Your task to perform on an android device: turn off priority inbox in the gmail app Image 0: 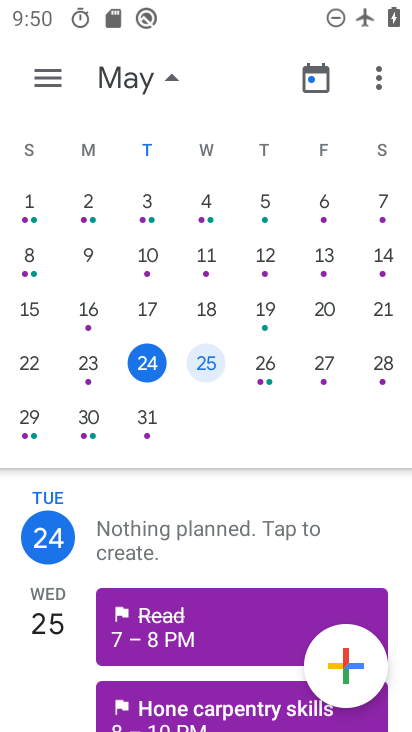
Step 0: press home button
Your task to perform on an android device: turn off priority inbox in the gmail app Image 1: 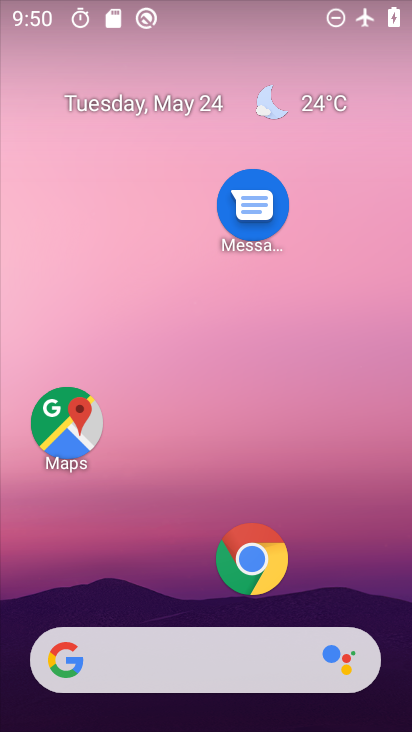
Step 1: click (176, 193)
Your task to perform on an android device: turn off priority inbox in the gmail app Image 2: 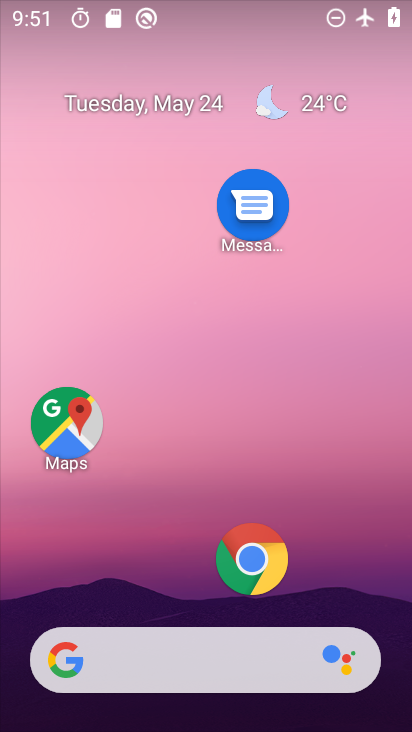
Step 2: drag from (175, 347) to (174, 212)
Your task to perform on an android device: turn off priority inbox in the gmail app Image 3: 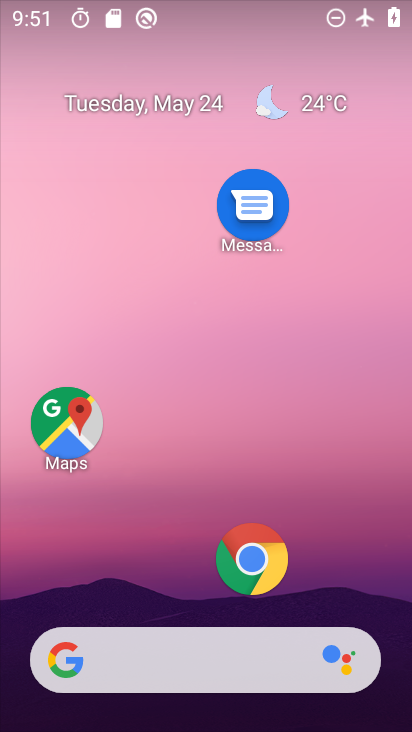
Step 3: click (178, 153)
Your task to perform on an android device: turn off priority inbox in the gmail app Image 4: 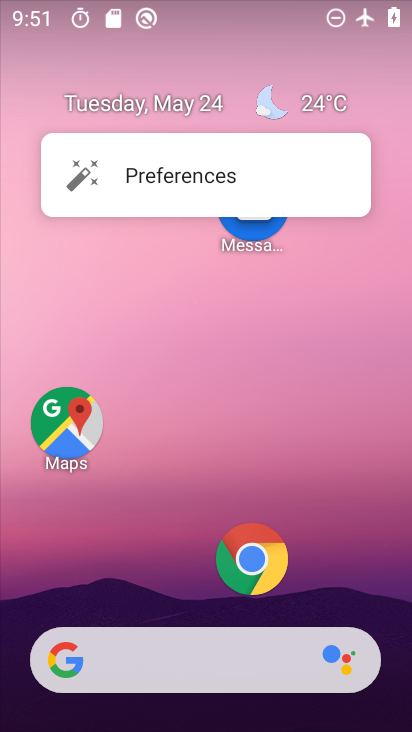
Step 4: click (175, 565)
Your task to perform on an android device: turn off priority inbox in the gmail app Image 5: 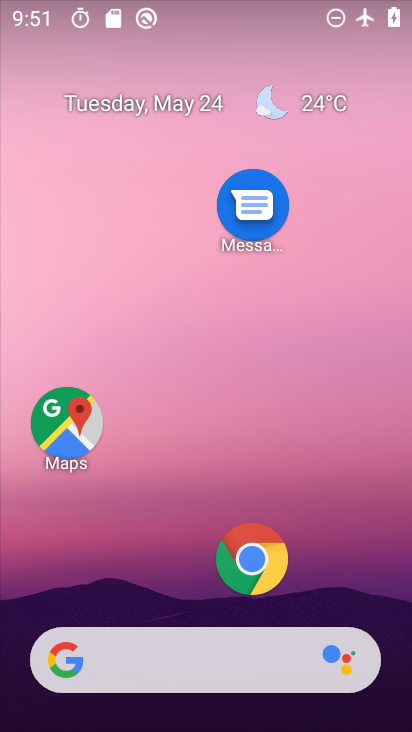
Step 5: drag from (182, 594) to (184, 111)
Your task to perform on an android device: turn off priority inbox in the gmail app Image 6: 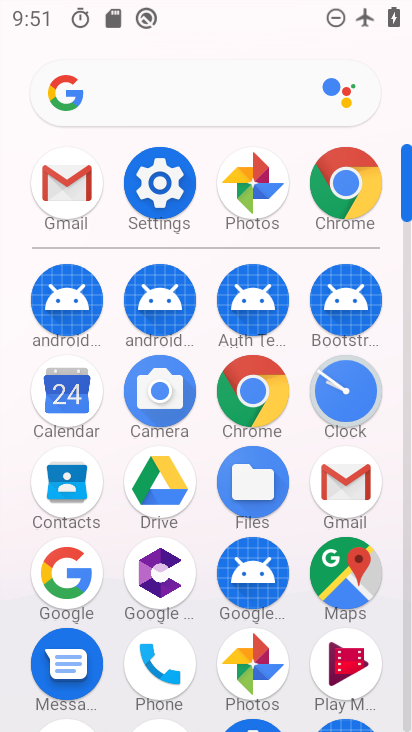
Step 6: click (333, 499)
Your task to perform on an android device: turn off priority inbox in the gmail app Image 7: 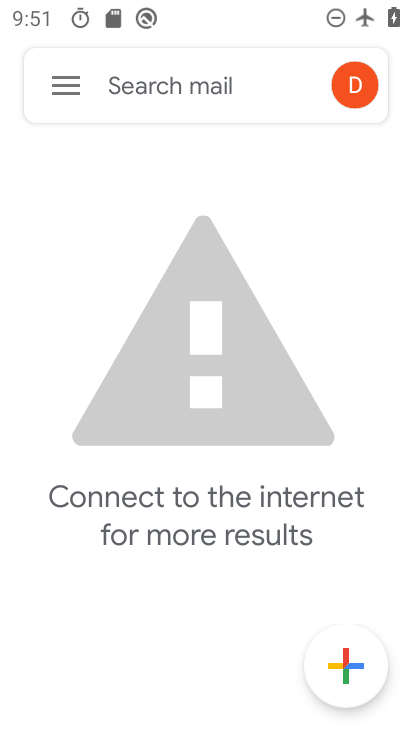
Step 7: click (44, 94)
Your task to perform on an android device: turn off priority inbox in the gmail app Image 8: 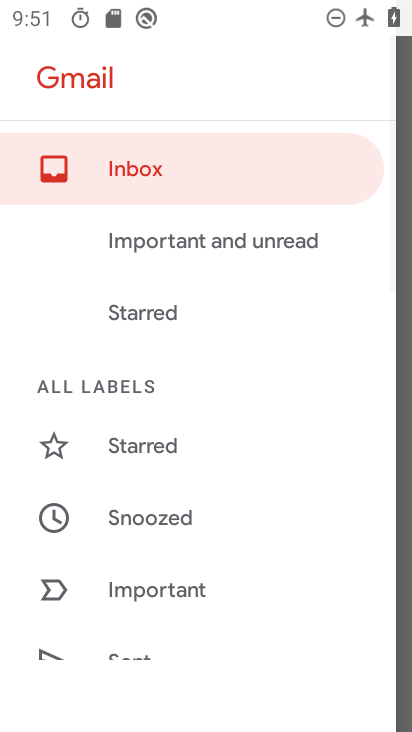
Step 8: drag from (143, 551) to (163, 284)
Your task to perform on an android device: turn off priority inbox in the gmail app Image 9: 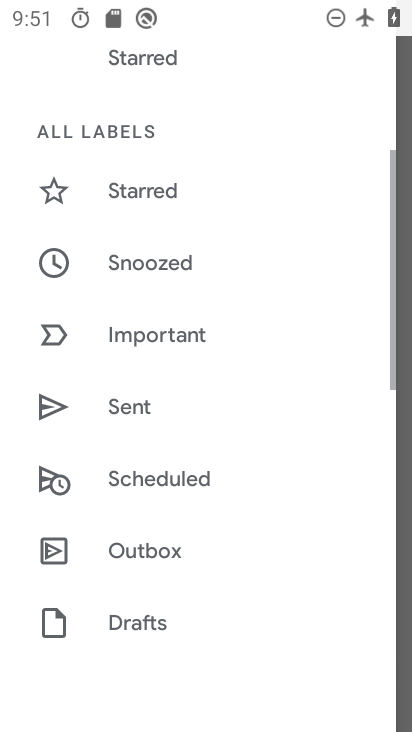
Step 9: drag from (211, 616) to (213, 296)
Your task to perform on an android device: turn off priority inbox in the gmail app Image 10: 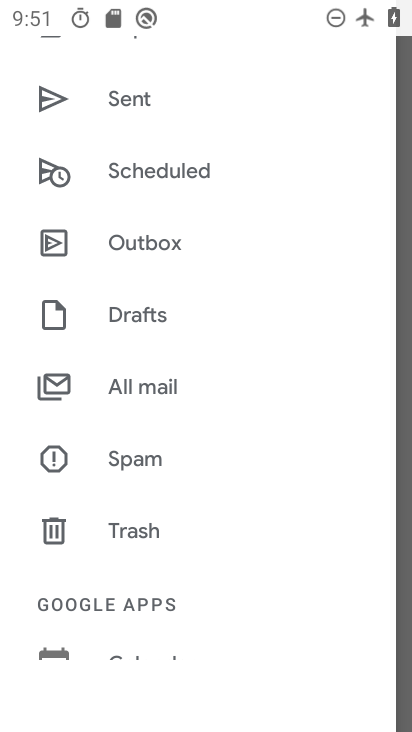
Step 10: drag from (211, 576) to (209, 264)
Your task to perform on an android device: turn off priority inbox in the gmail app Image 11: 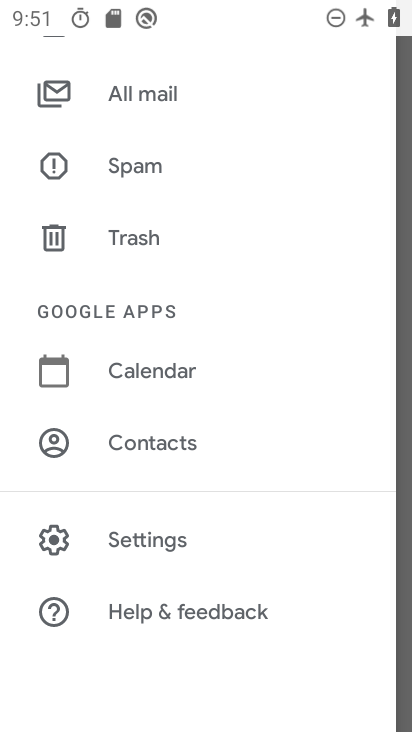
Step 11: click (184, 541)
Your task to perform on an android device: turn off priority inbox in the gmail app Image 12: 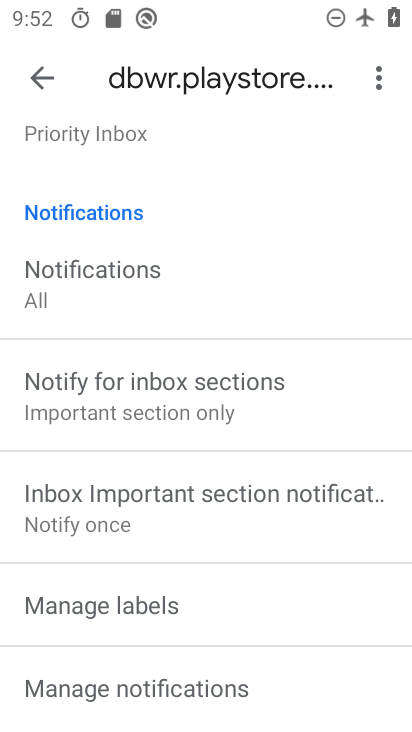
Step 12: drag from (247, 494) to (255, 384)
Your task to perform on an android device: turn off priority inbox in the gmail app Image 13: 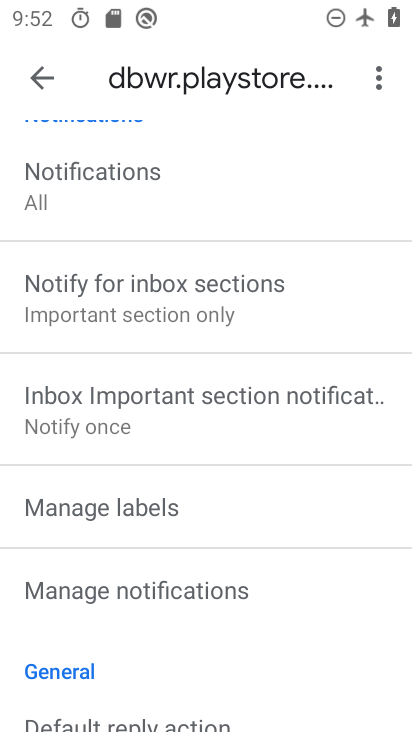
Step 13: drag from (173, 675) to (217, 431)
Your task to perform on an android device: turn off priority inbox in the gmail app Image 14: 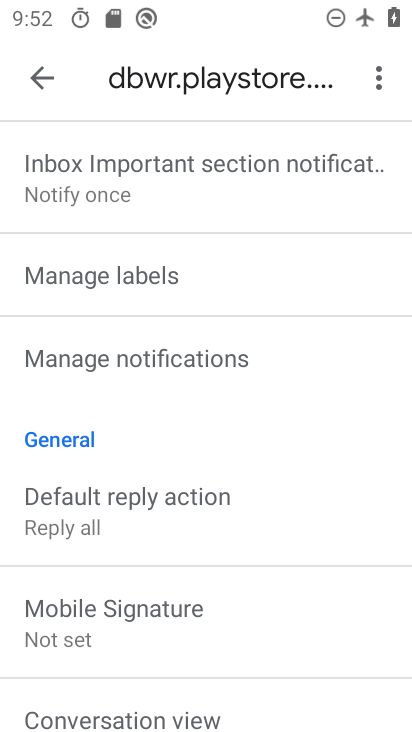
Step 14: drag from (234, 481) to (250, 641)
Your task to perform on an android device: turn off priority inbox in the gmail app Image 15: 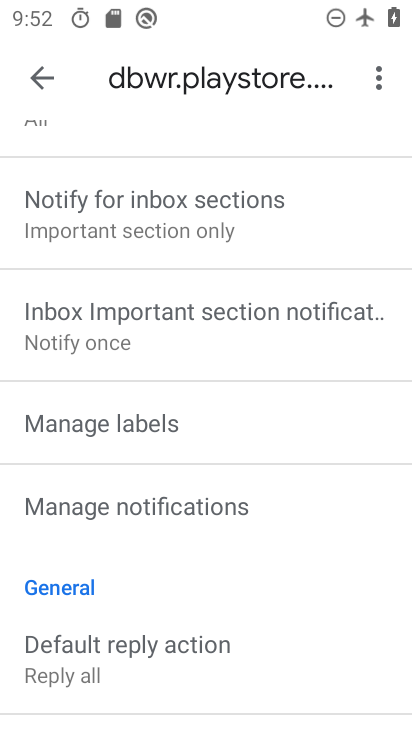
Step 15: drag from (234, 462) to (226, 603)
Your task to perform on an android device: turn off priority inbox in the gmail app Image 16: 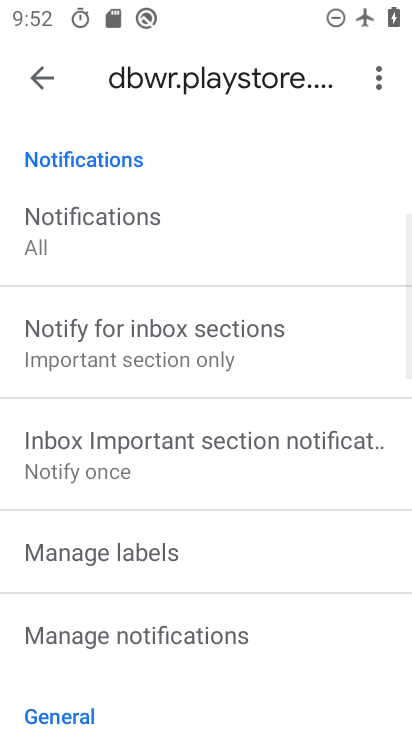
Step 16: drag from (154, 277) to (252, 397)
Your task to perform on an android device: turn off priority inbox in the gmail app Image 17: 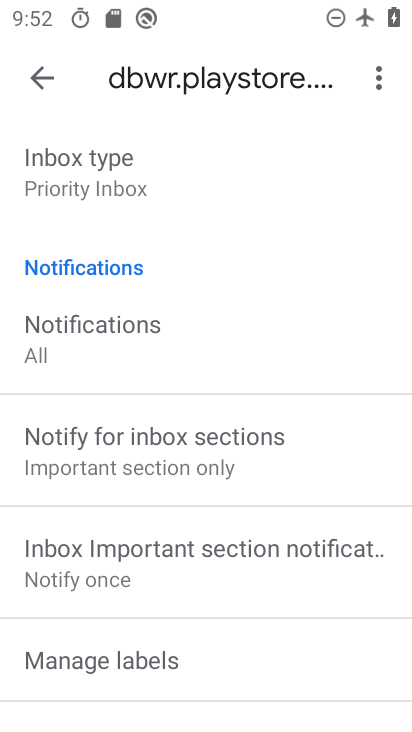
Step 17: click (164, 170)
Your task to perform on an android device: turn off priority inbox in the gmail app Image 18: 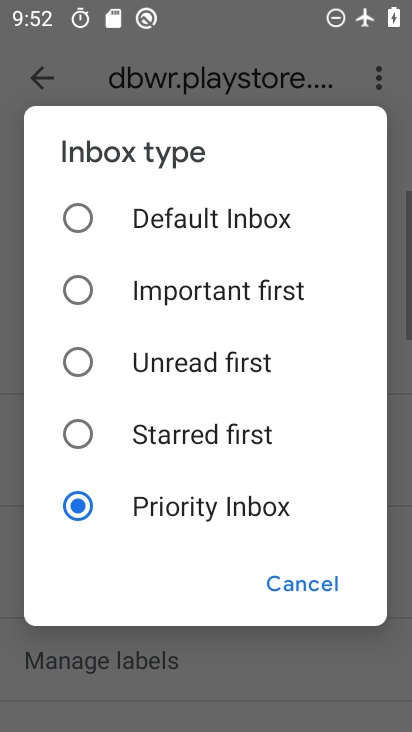
Step 18: click (179, 207)
Your task to perform on an android device: turn off priority inbox in the gmail app Image 19: 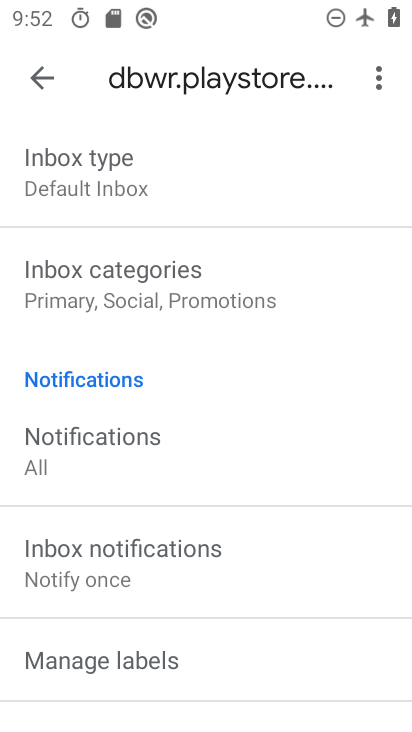
Step 19: task complete